Your task to perform on an android device: Open Wikipedia Image 0: 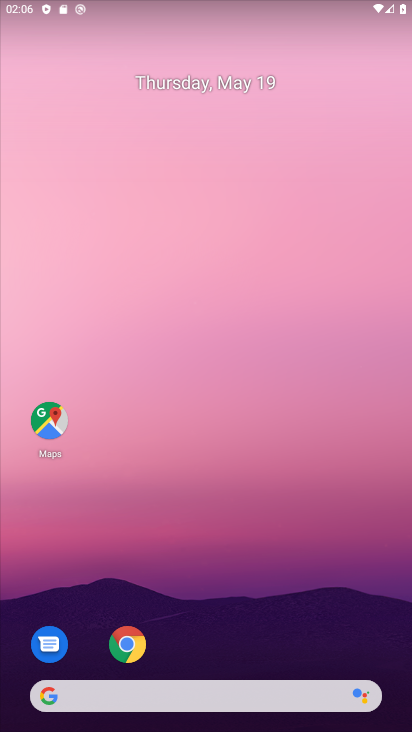
Step 0: click (48, 415)
Your task to perform on an android device: Open Wikipedia Image 1: 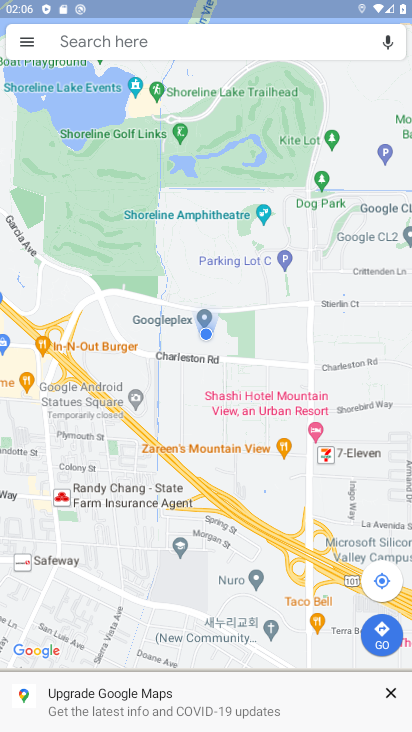
Step 1: press home button
Your task to perform on an android device: Open Wikipedia Image 2: 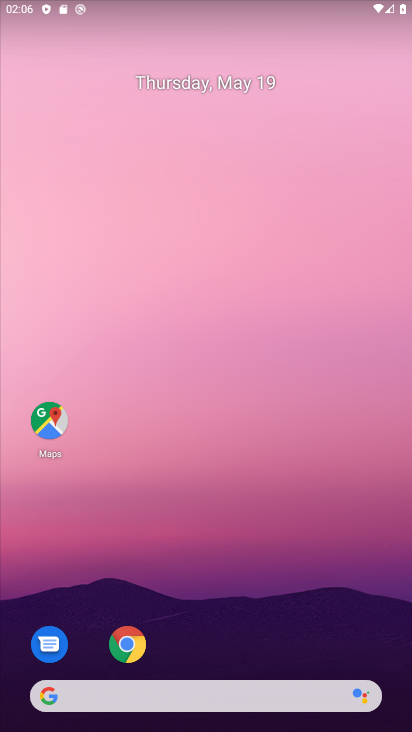
Step 2: click (126, 639)
Your task to perform on an android device: Open Wikipedia Image 3: 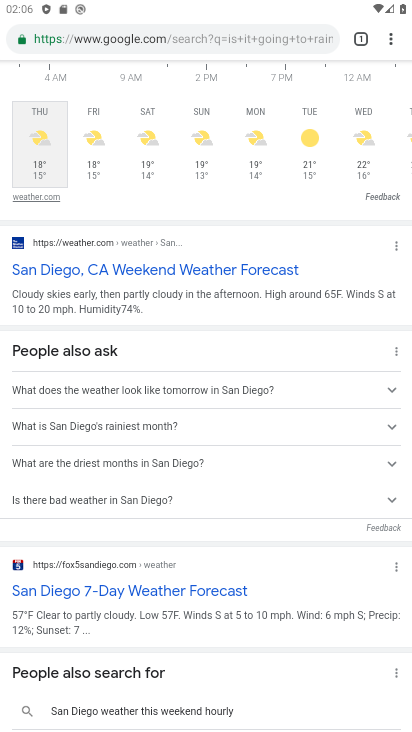
Step 3: click (385, 36)
Your task to perform on an android device: Open Wikipedia Image 4: 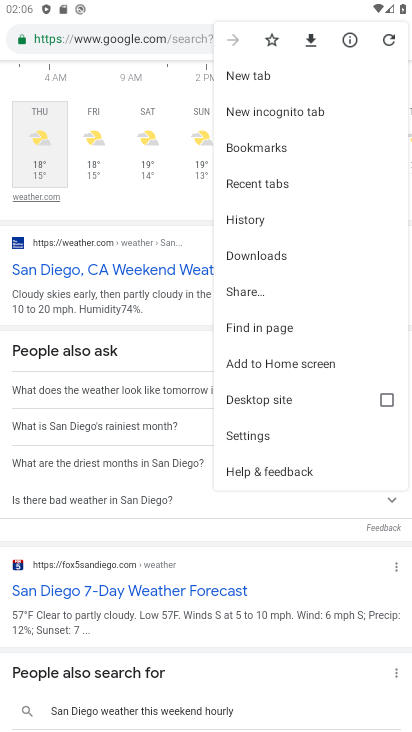
Step 4: click (245, 80)
Your task to perform on an android device: Open Wikipedia Image 5: 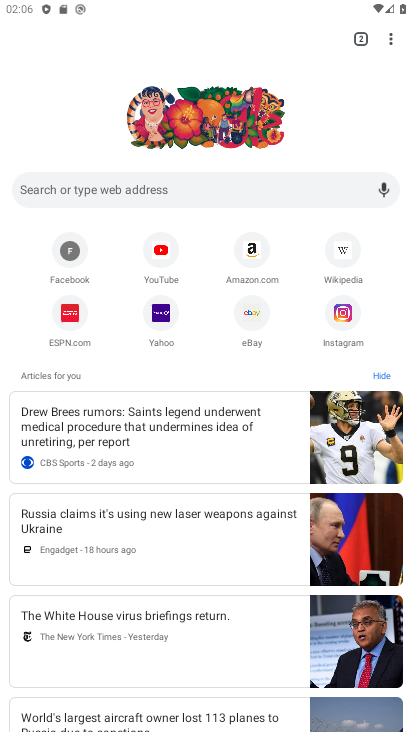
Step 5: click (343, 246)
Your task to perform on an android device: Open Wikipedia Image 6: 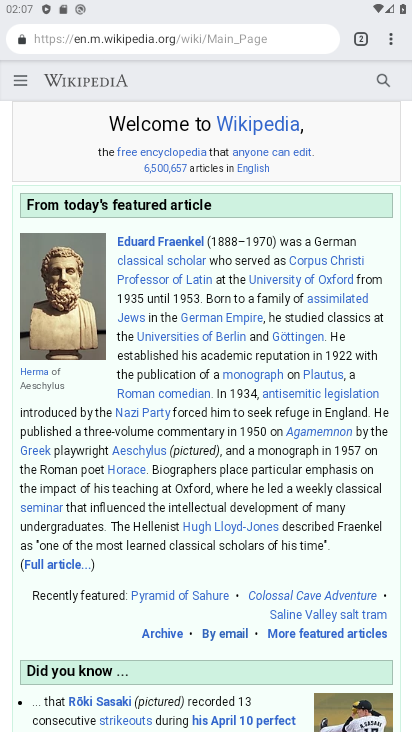
Step 6: task complete